Your task to perform on an android device: Open maps Image 0: 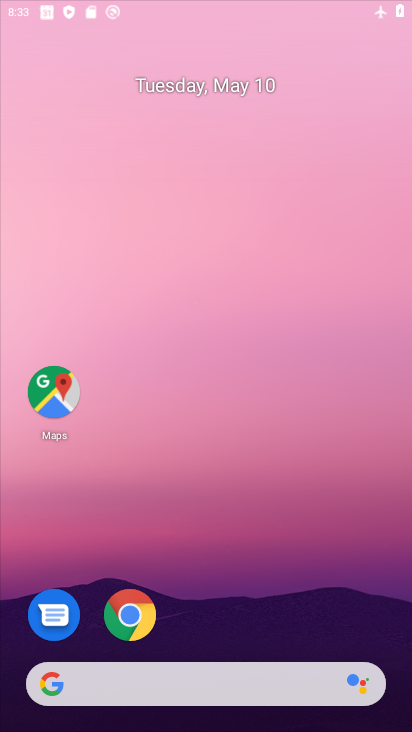
Step 0: drag from (162, 229) to (162, 88)
Your task to perform on an android device: Open maps Image 1: 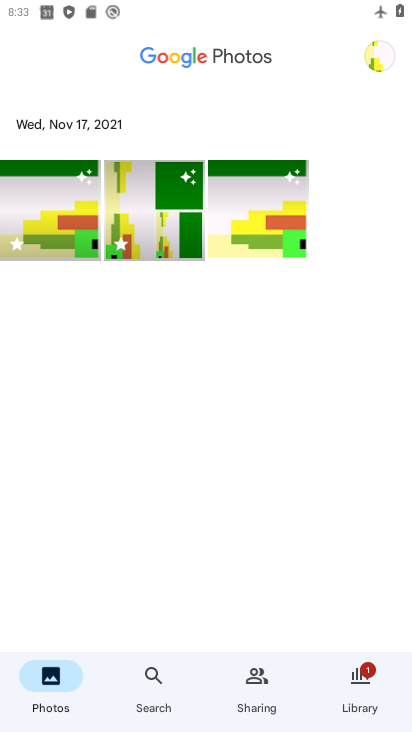
Step 1: press home button
Your task to perform on an android device: Open maps Image 2: 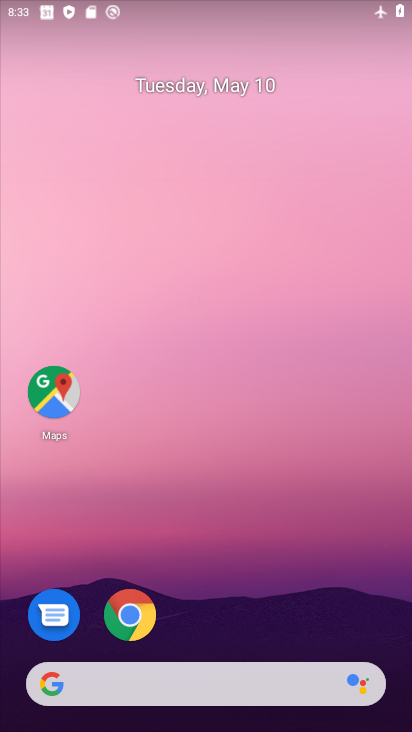
Step 2: click (52, 405)
Your task to perform on an android device: Open maps Image 3: 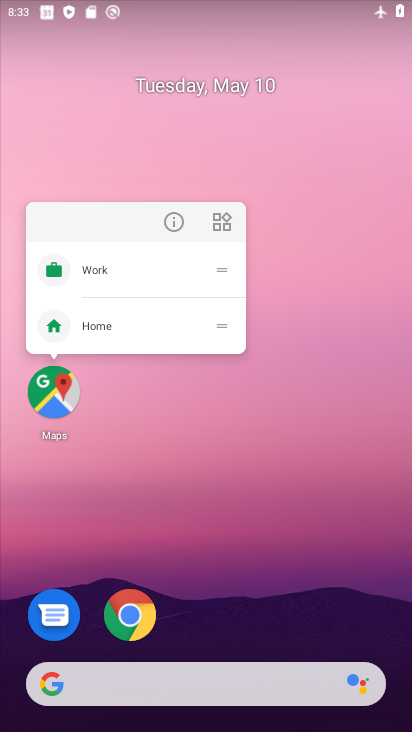
Step 3: click (173, 215)
Your task to perform on an android device: Open maps Image 4: 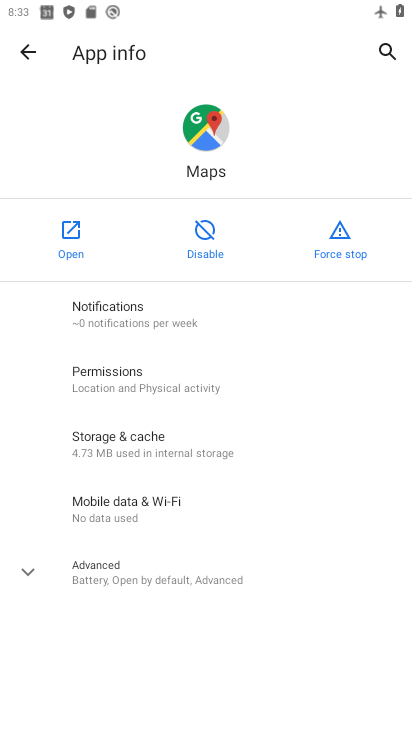
Step 4: click (64, 243)
Your task to perform on an android device: Open maps Image 5: 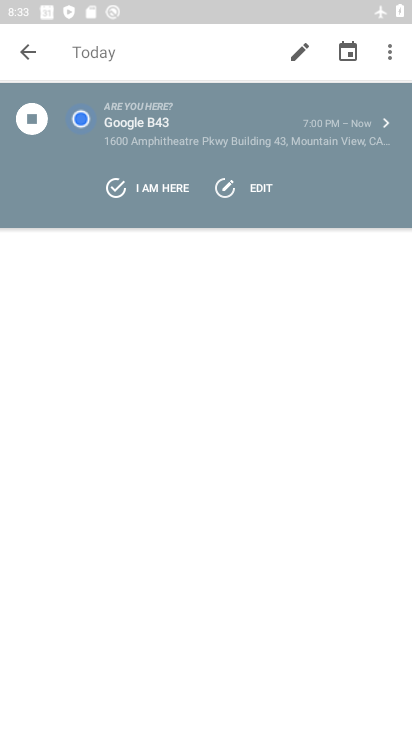
Step 5: click (22, 38)
Your task to perform on an android device: Open maps Image 6: 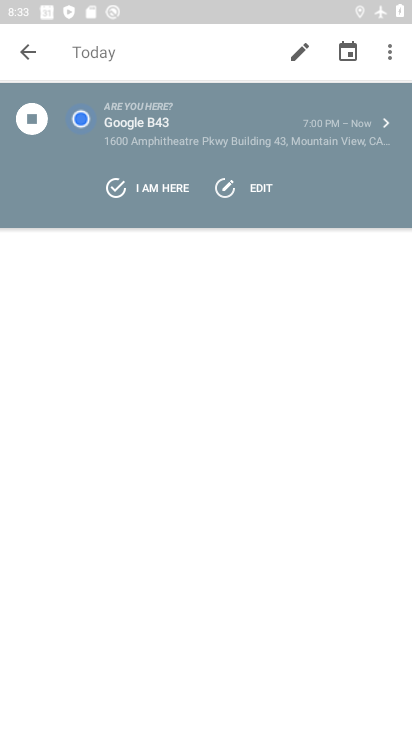
Step 6: click (28, 47)
Your task to perform on an android device: Open maps Image 7: 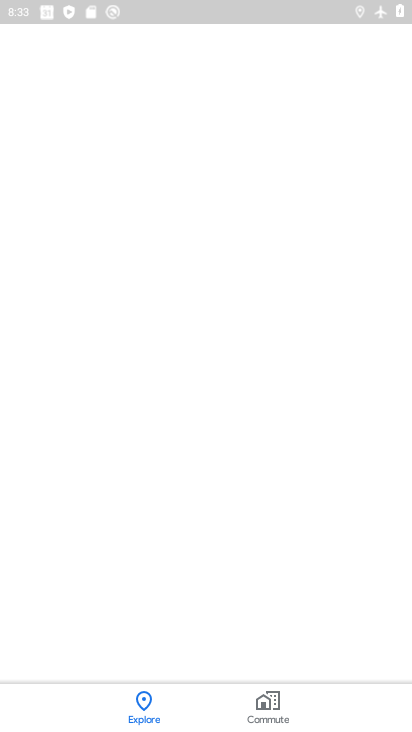
Step 7: task complete